Your task to perform on an android device: Search for pizza restaurants on Maps Image 0: 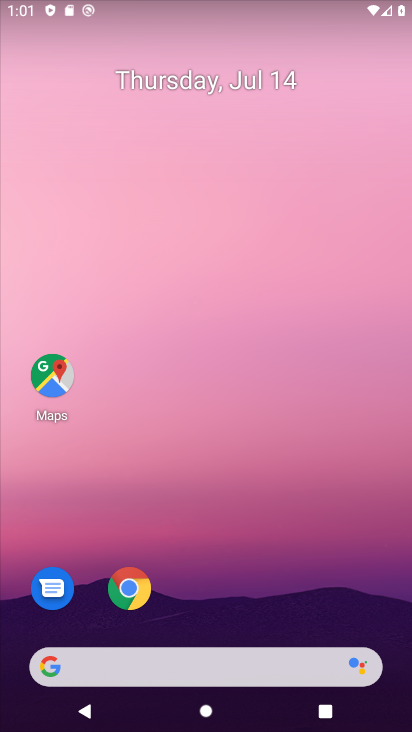
Step 0: click (35, 36)
Your task to perform on an android device: Search for pizza restaurants on Maps Image 1: 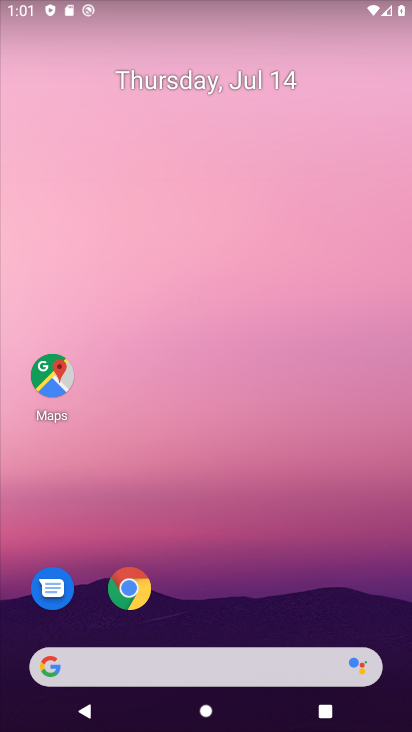
Step 1: drag from (286, 646) to (257, 488)
Your task to perform on an android device: Search for pizza restaurants on Maps Image 2: 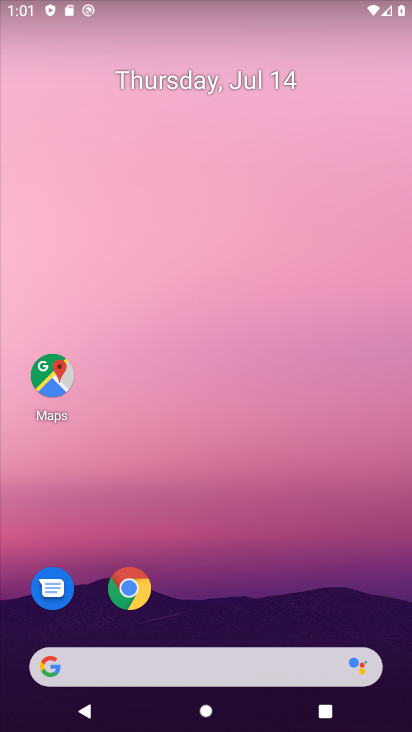
Step 2: click (205, 279)
Your task to perform on an android device: Search for pizza restaurants on Maps Image 3: 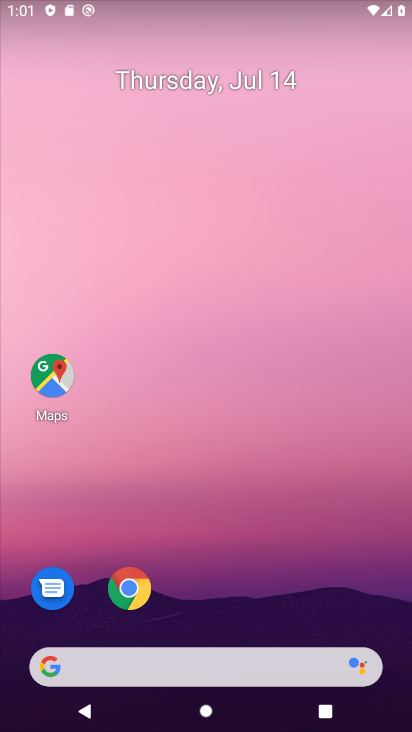
Step 3: click (213, 169)
Your task to perform on an android device: Search for pizza restaurants on Maps Image 4: 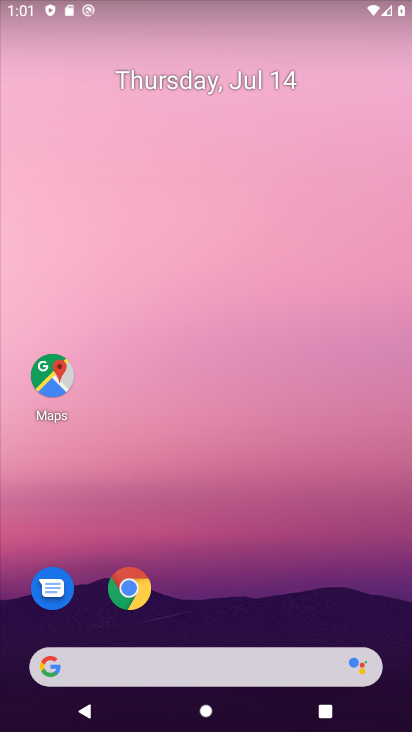
Step 4: drag from (255, 686) to (238, 337)
Your task to perform on an android device: Search for pizza restaurants on Maps Image 5: 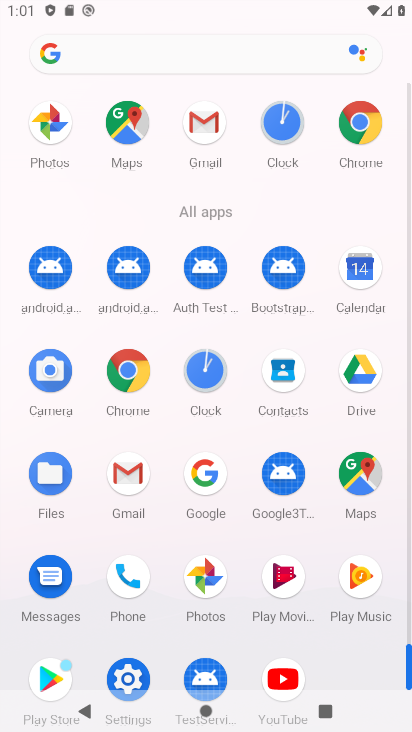
Step 5: drag from (247, 687) to (184, 372)
Your task to perform on an android device: Search for pizza restaurants on Maps Image 6: 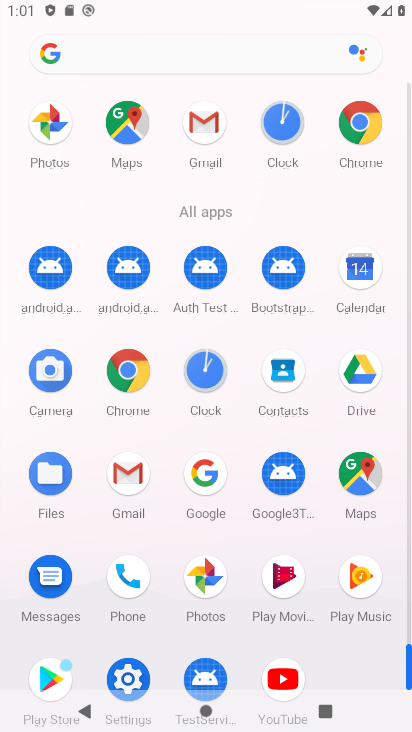
Step 6: drag from (236, 604) to (116, 147)
Your task to perform on an android device: Search for pizza restaurants on Maps Image 7: 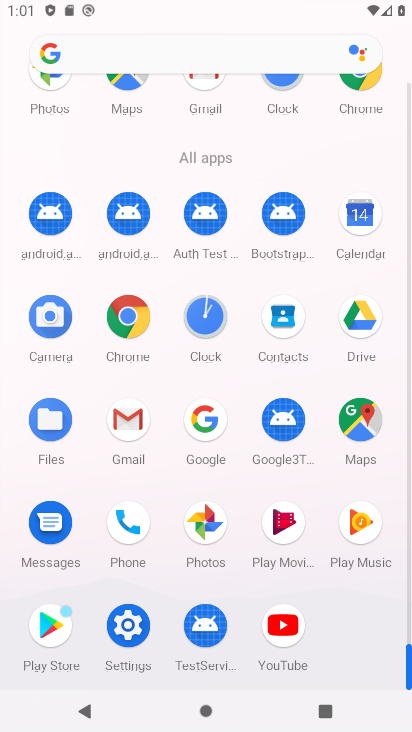
Step 7: click (347, 427)
Your task to perform on an android device: Search for pizza restaurants on Maps Image 8: 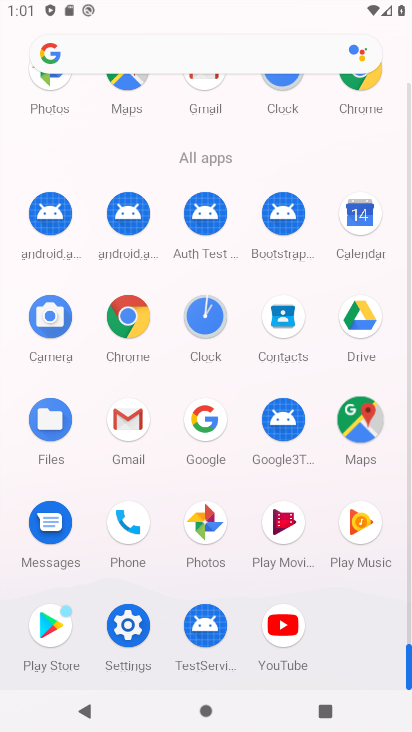
Step 8: click (347, 428)
Your task to perform on an android device: Search for pizza restaurants on Maps Image 9: 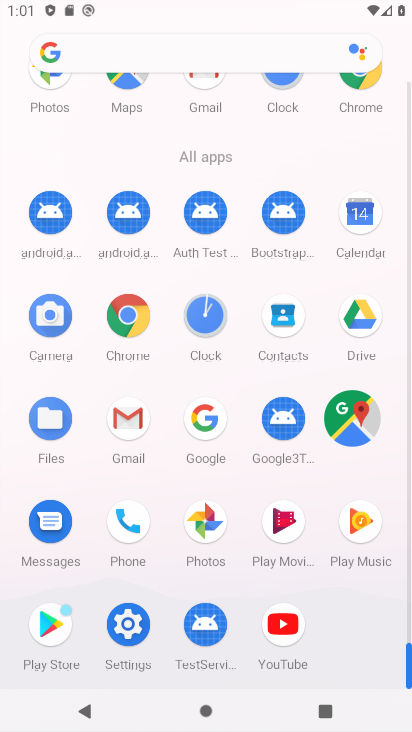
Step 9: click (348, 429)
Your task to perform on an android device: Search for pizza restaurants on Maps Image 10: 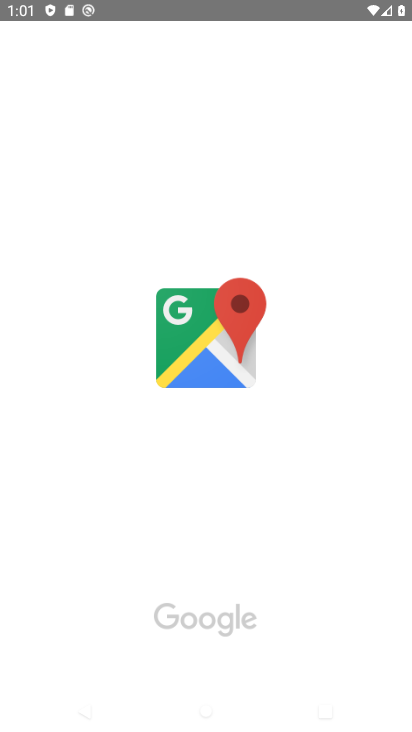
Step 10: click (350, 431)
Your task to perform on an android device: Search for pizza restaurants on Maps Image 11: 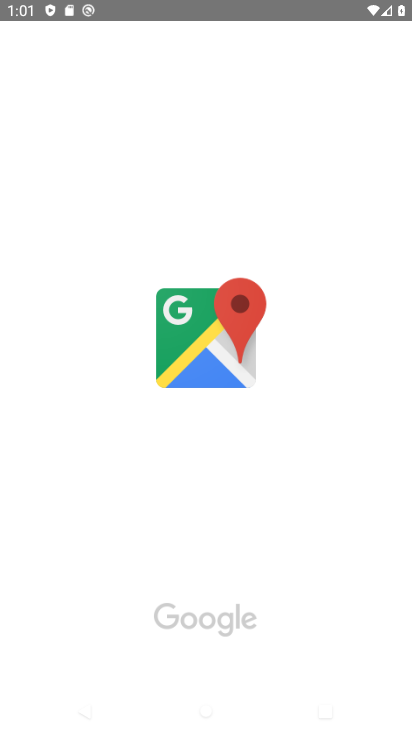
Step 11: click (350, 431)
Your task to perform on an android device: Search for pizza restaurants on Maps Image 12: 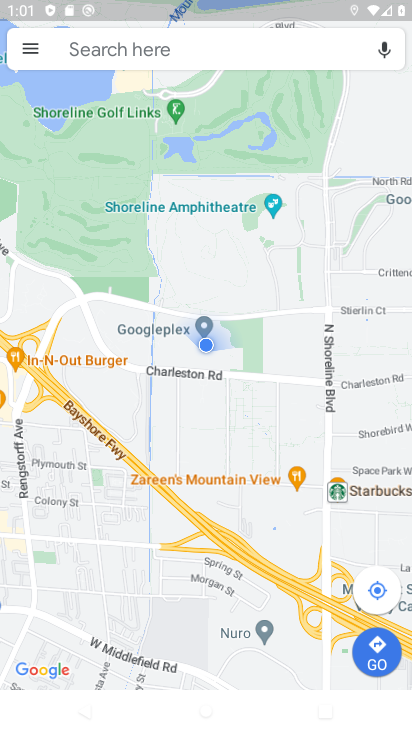
Step 12: click (90, 46)
Your task to perform on an android device: Search for pizza restaurants on Maps Image 13: 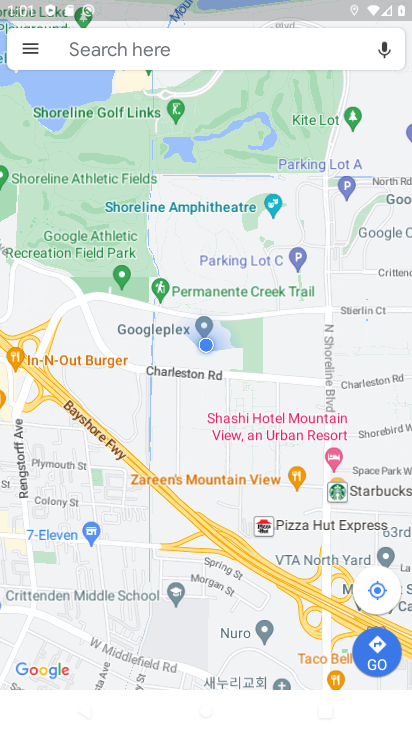
Step 13: click (93, 48)
Your task to perform on an android device: Search for pizza restaurants on Maps Image 14: 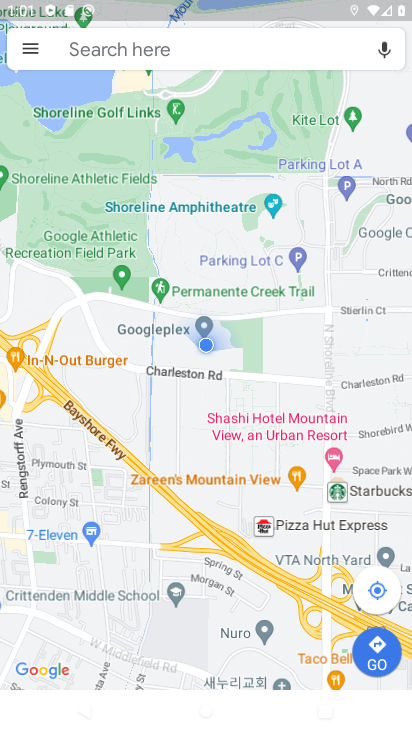
Step 14: click (96, 55)
Your task to perform on an android device: Search for pizza restaurants on Maps Image 15: 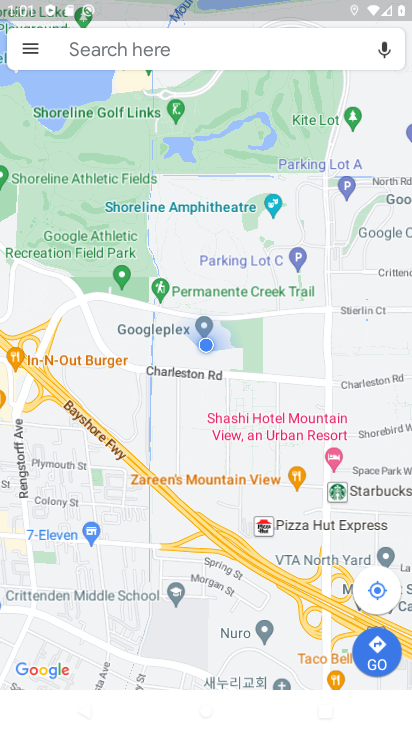
Step 15: click (99, 56)
Your task to perform on an android device: Search for pizza restaurants on Maps Image 16: 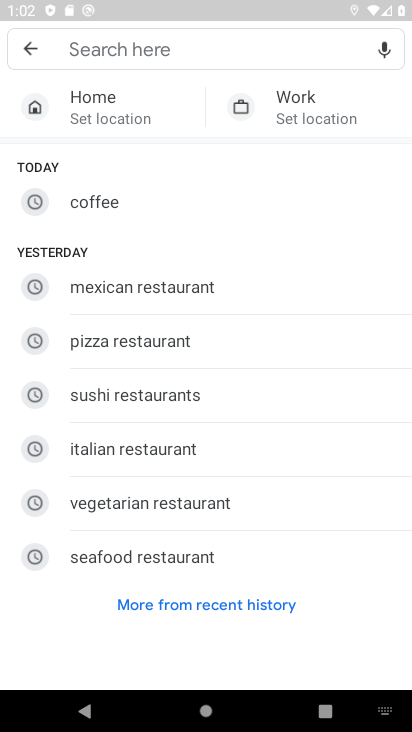
Step 16: click (90, 44)
Your task to perform on an android device: Search for pizza restaurants on Maps Image 17: 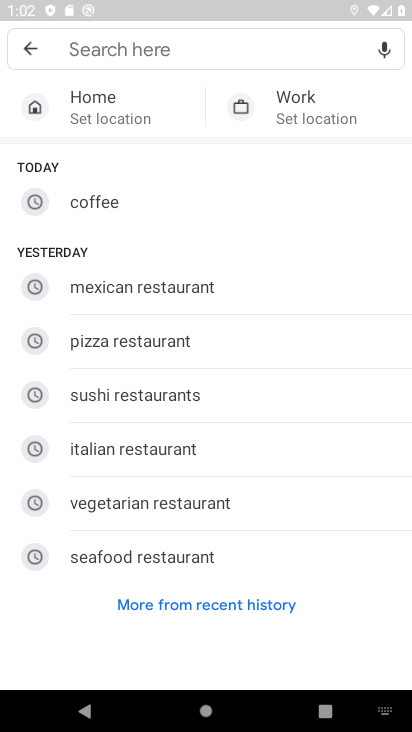
Step 17: type "pizza "
Your task to perform on an android device: Search for pizza restaurants on Maps Image 18: 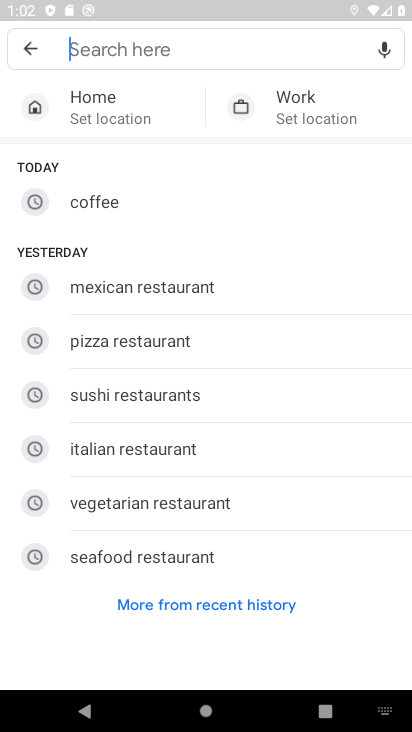
Step 18: click (136, 336)
Your task to perform on an android device: Search for pizza restaurants on Maps Image 19: 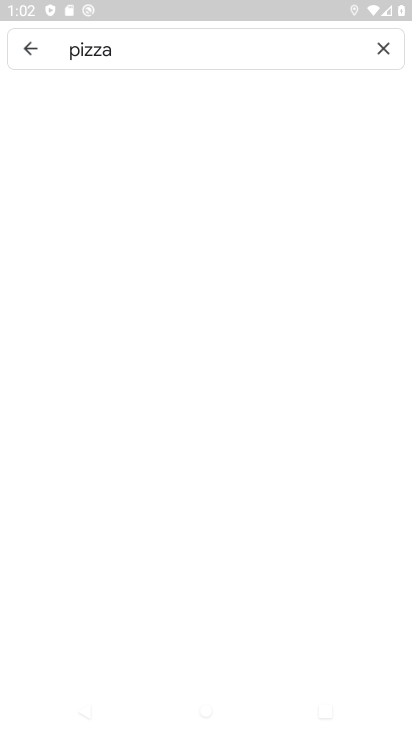
Step 19: click (136, 336)
Your task to perform on an android device: Search for pizza restaurants on Maps Image 20: 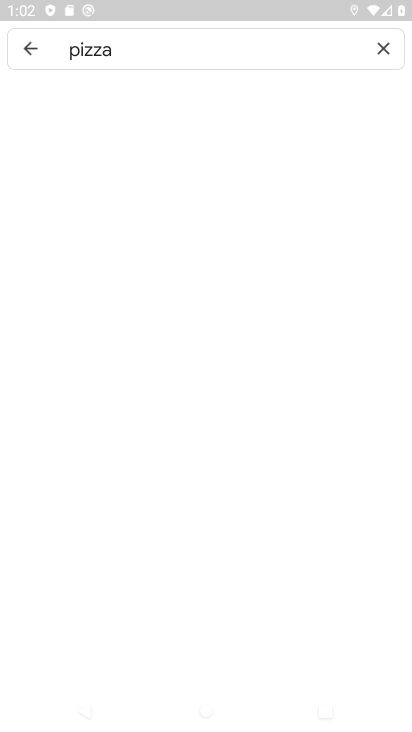
Step 20: click (111, 335)
Your task to perform on an android device: Search for pizza restaurants on Maps Image 21: 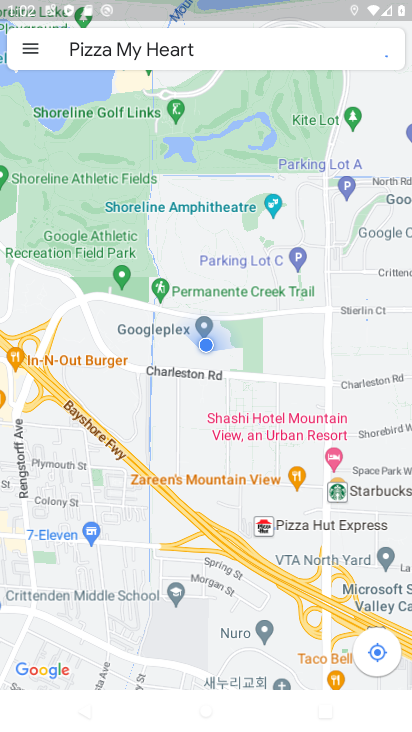
Step 21: click (111, 335)
Your task to perform on an android device: Search for pizza restaurants on Maps Image 22: 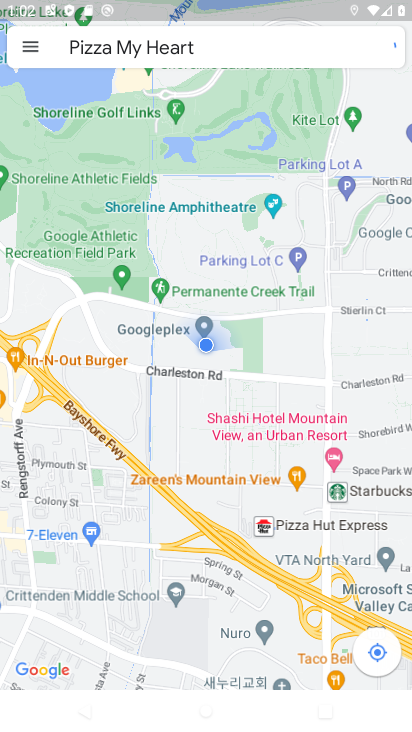
Step 22: click (151, 349)
Your task to perform on an android device: Search for pizza restaurants on Maps Image 23: 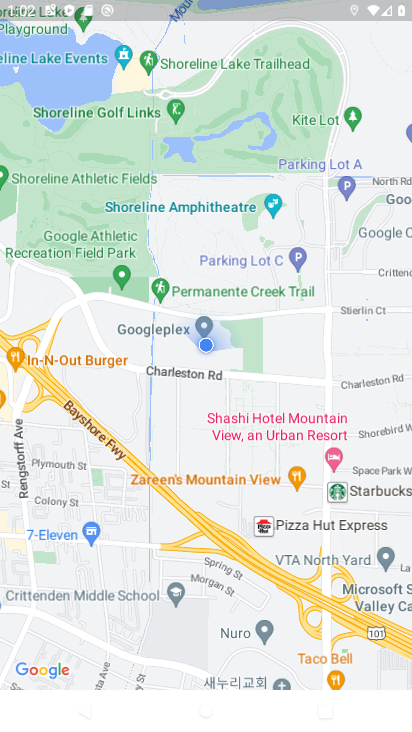
Step 23: click (156, 347)
Your task to perform on an android device: Search for pizza restaurants on Maps Image 24: 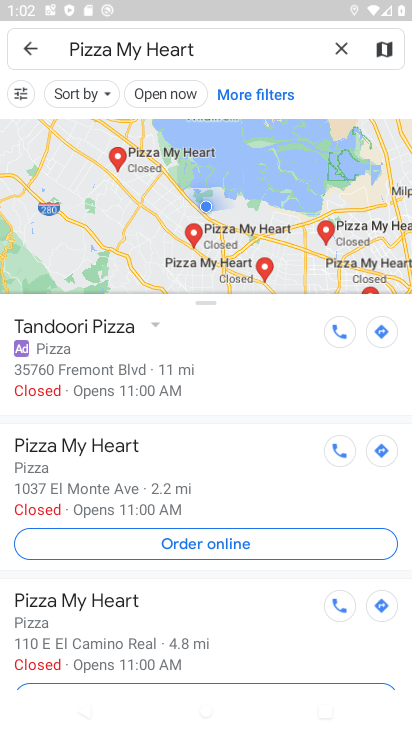
Step 24: task complete